Your task to perform on an android device: Open the calendar and show me this week's events? Image 0: 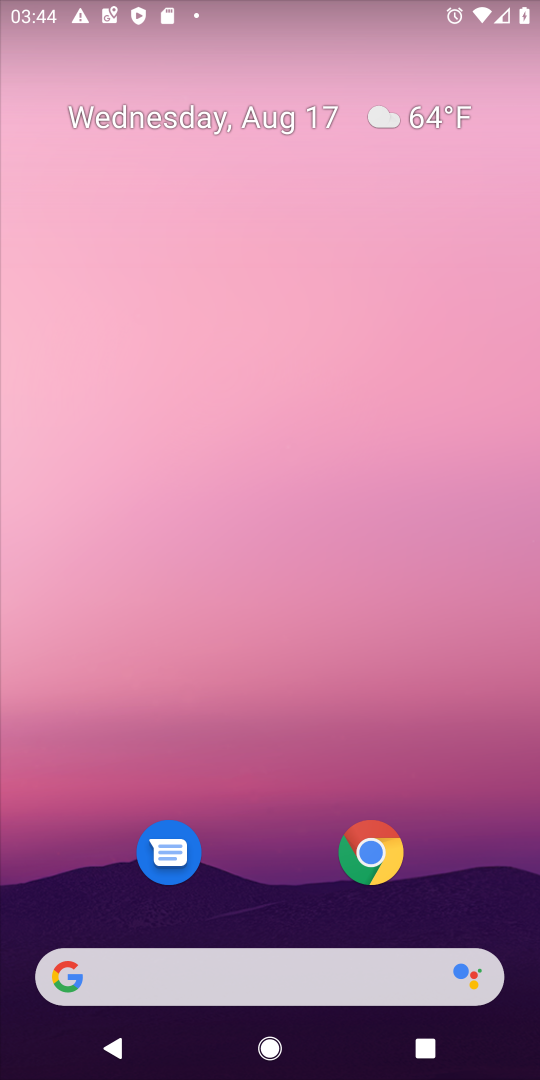
Step 0: click (272, 117)
Your task to perform on an android device: Open the calendar and show me this week's events? Image 1: 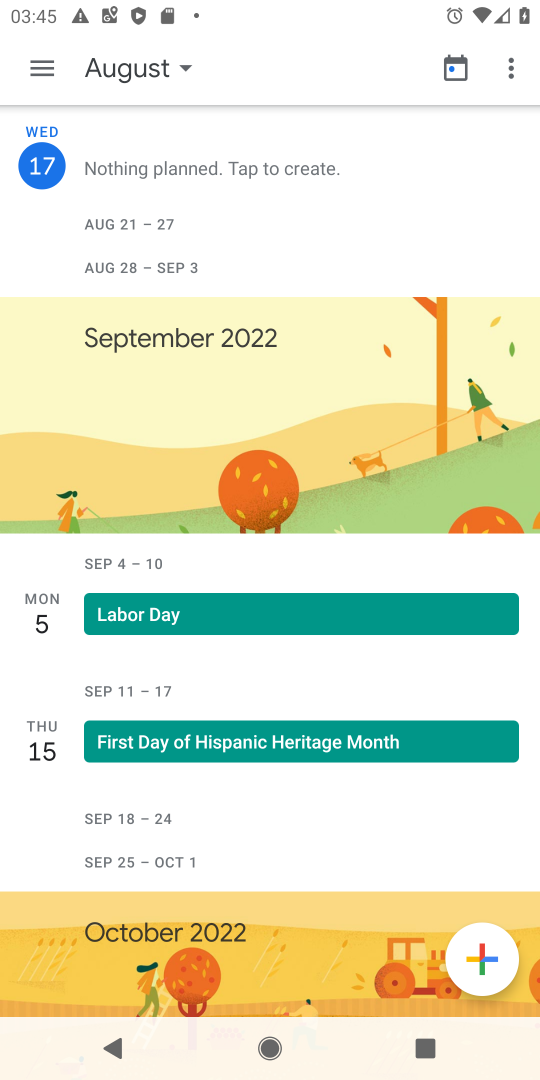
Step 1: click (40, 56)
Your task to perform on an android device: Open the calendar and show me this week's events? Image 2: 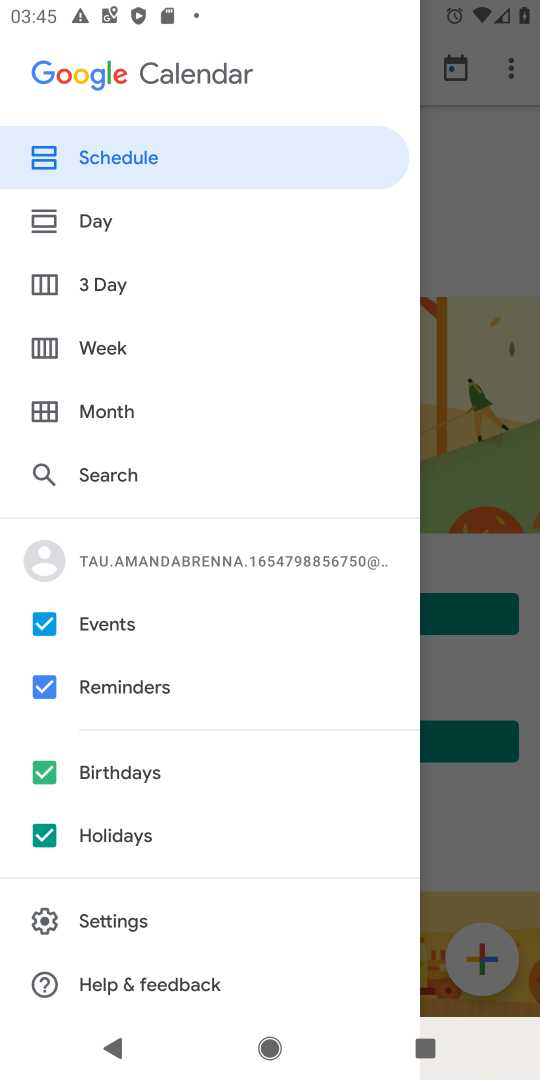
Step 2: click (129, 341)
Your task to perform on an android device: Open the calendar and show me this week's events? Image 3: 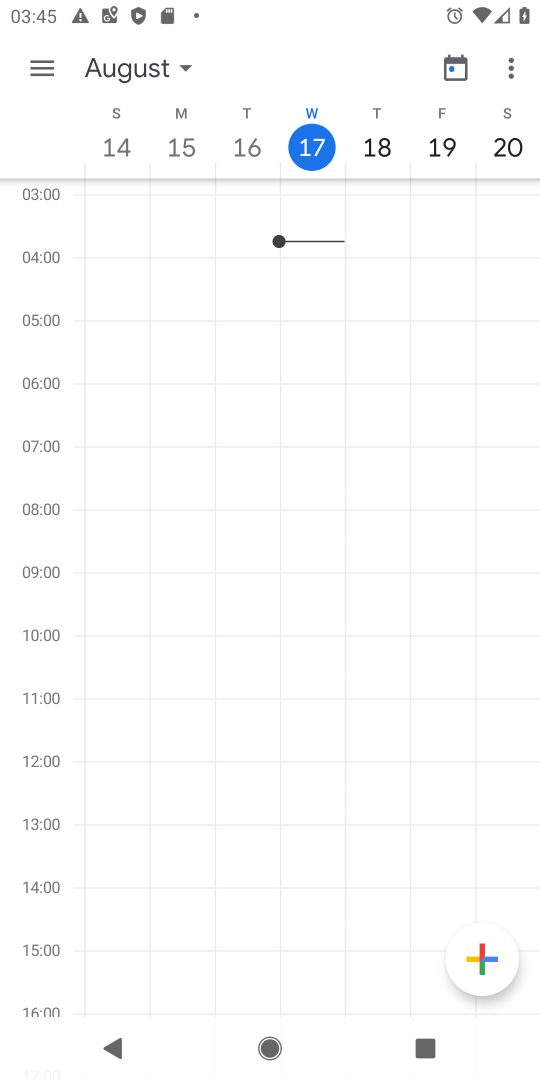
Step 3: task complete